Your task to perform on an android device: Go to Yahoo.com Image 0: 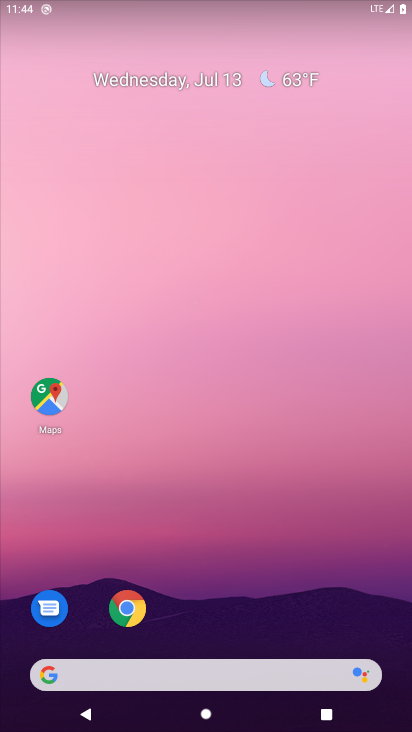
Step 0: click (119, 619)
Your task to perform on an android device: Go to Yahoo.com Image 1: 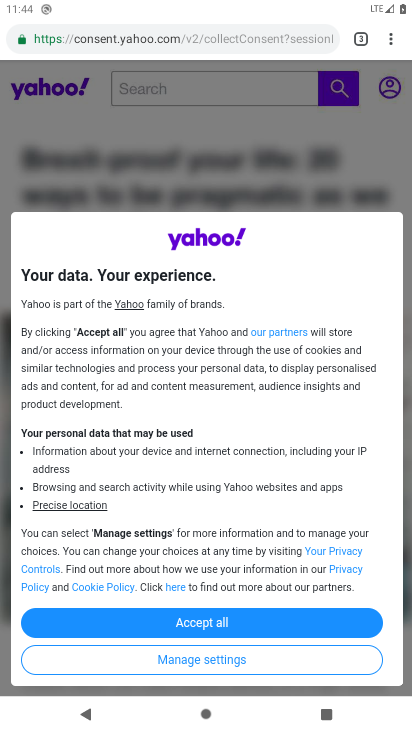
Step 1: task complete